Your task to perform on an android device: Open calendar and show me the third week of next month Image 0: 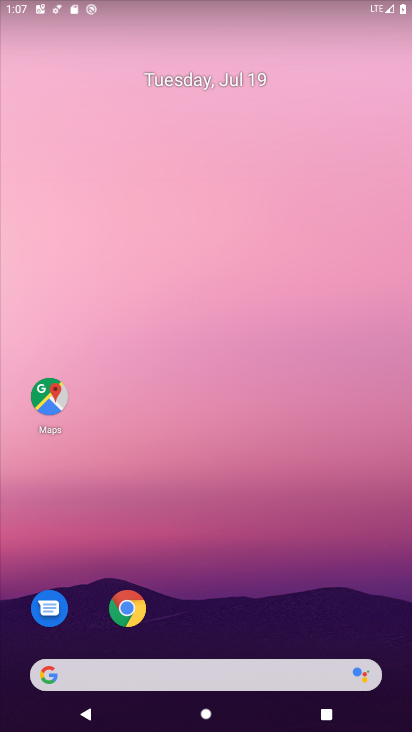
Step 0: click (287, 591)
Your task to perform on an android device: Open calendar and show me the third week of next month Image 1: 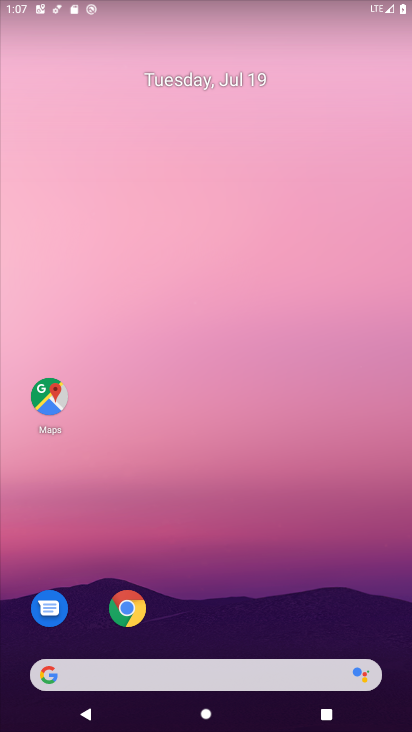
Step 1: click (351, 281)
Your task to perform on an android device: Open calendar and show me the third week of next month Image 2: 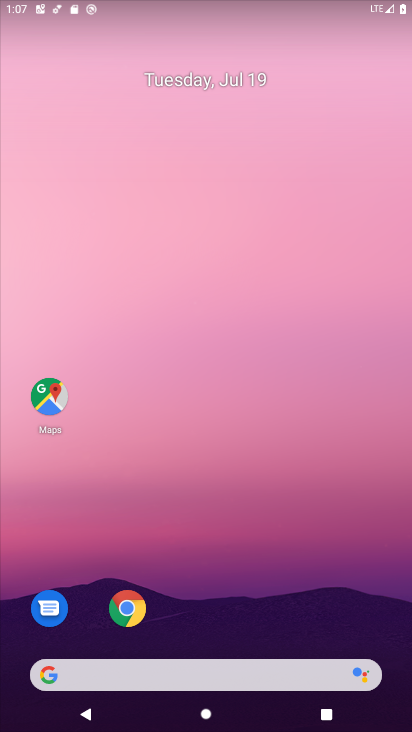
Step 2: drag from (278, 616) to (301, 135)
Your task to perform on an android device: Open calendar and show me the third week of next month Image 3: 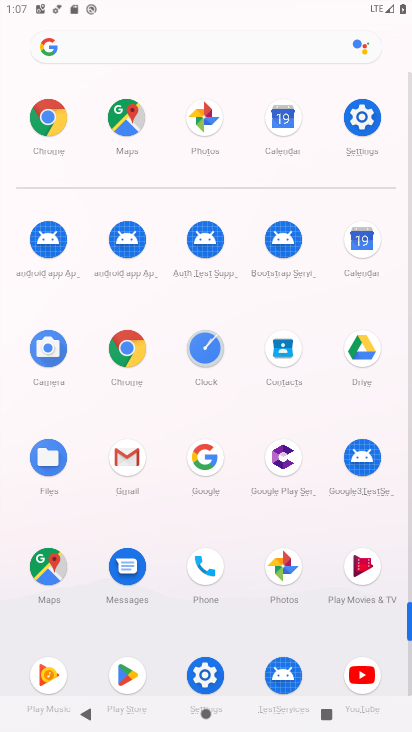
Step 3: click (368, 251)
Your task to perform on an android device: Open calendar and show me the third week of next month Image 4: 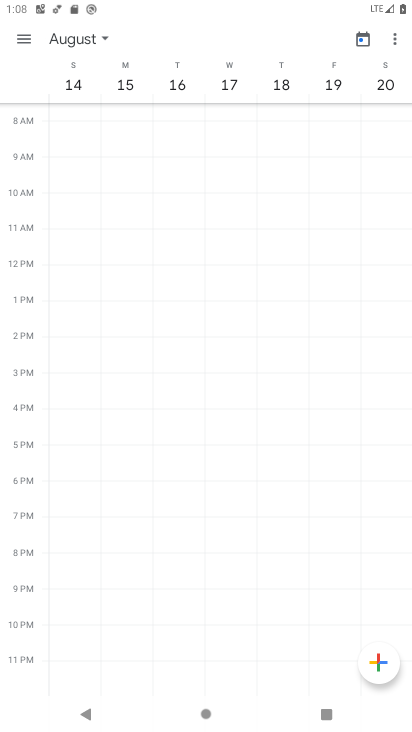
Step 4: click (111, 38)
Your task to perform on an android device: Open calendar and show me the third week of next month Image 5: 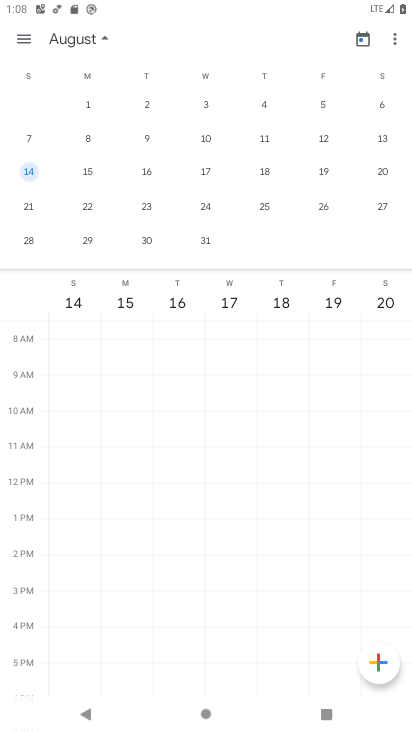
Step 5: click (105, 39)
Your task to perform on an android device: Open calendar and show me the third week of next month Image 6: 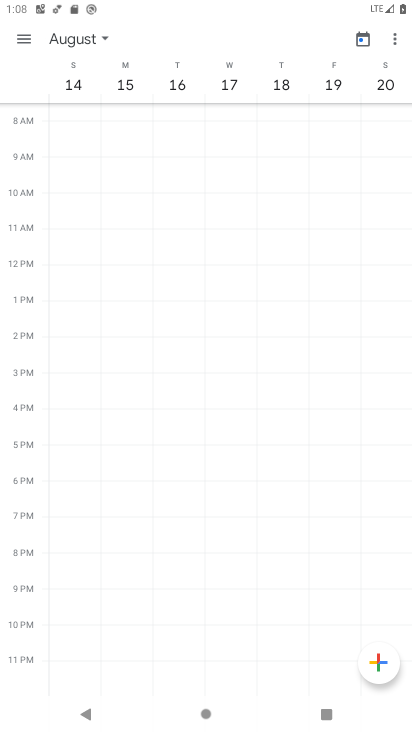
Step 6: task complete